Your task to perform on an android device: change timer sound Image 0: 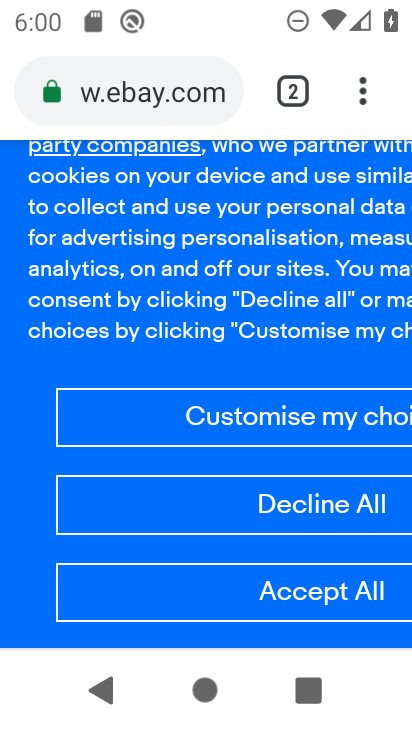
Step 0: press home button
Your task to perform on an android device: change timer sound Image 1: 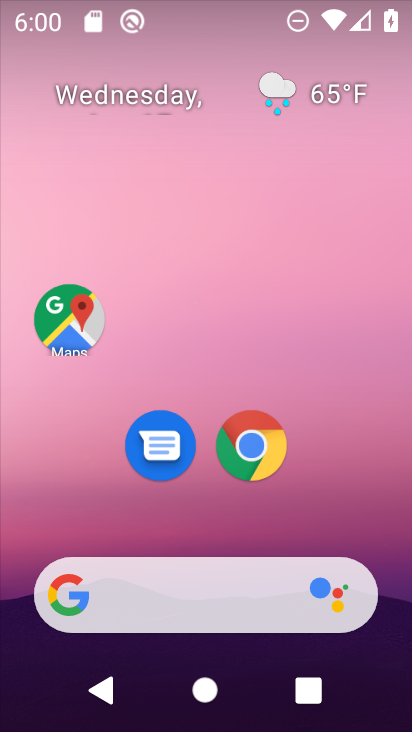
Step 1: drag from (190, 443) to (144, 122)
Your task to perform on an android device: change timer sound Image 2: 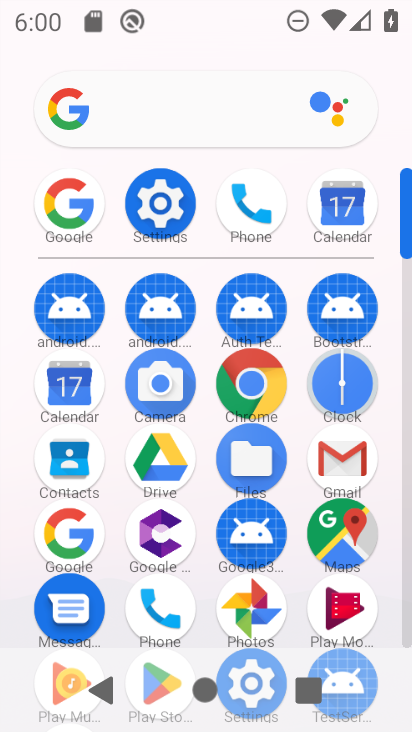
Step 2: click (365, 386)
Your task to perform on an android device: change timer sound Image 3: 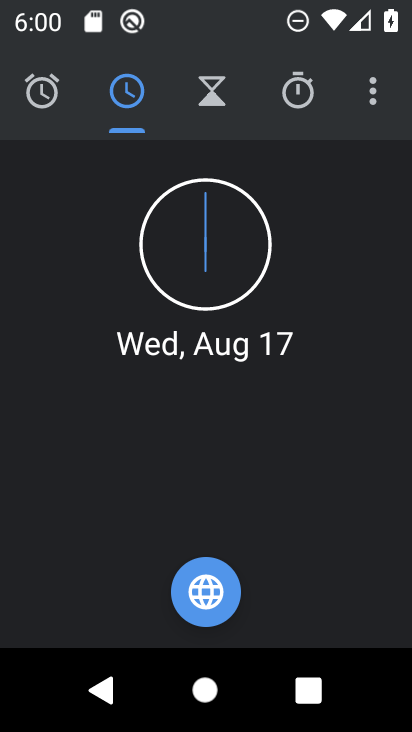
Step 3: click (368, 100)
Your task to perform on an android device: change timer sound Image 4: 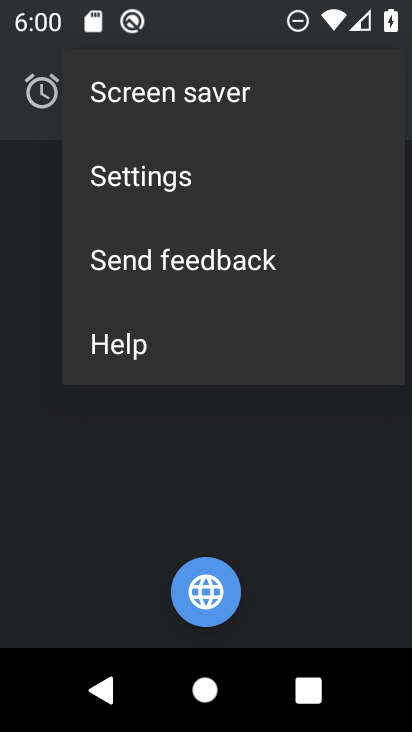
Step 4: click (194, 159)
Your task to perform on an android device: change timer sound Image 5: 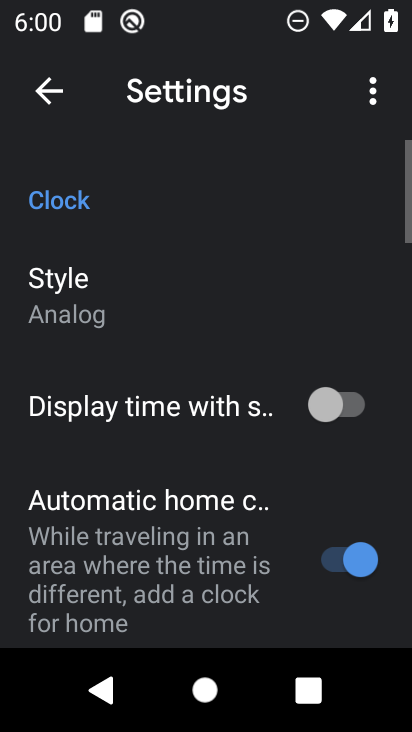
Step 5: drag from (141, 529) to (201, 101)
Your task to perform on an android device: change timer sound Image 6: 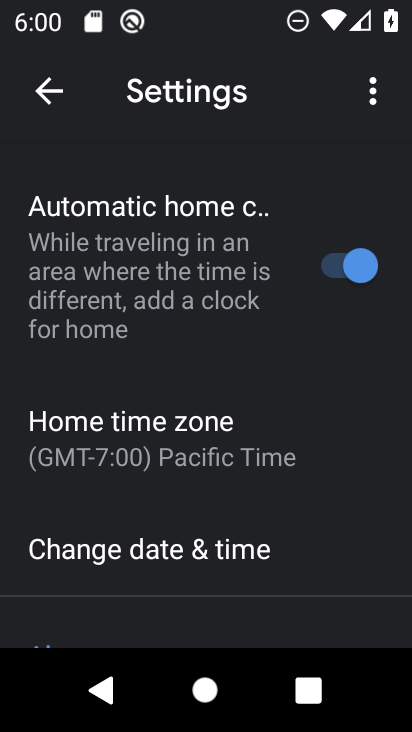
Step 6: drag from (228, 528) to (276, 152)
Your task to perform on an android device: change timer sound Image 7: 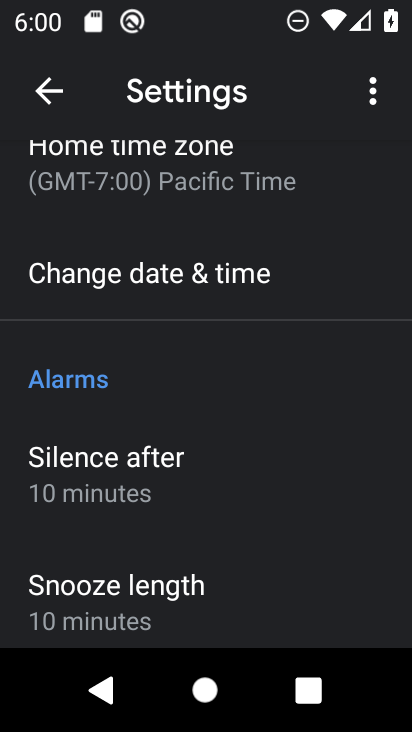
Step 7: drag from (227, 506) to (239, 136)
Your task to perform on an android device: change timer sound Image 8: 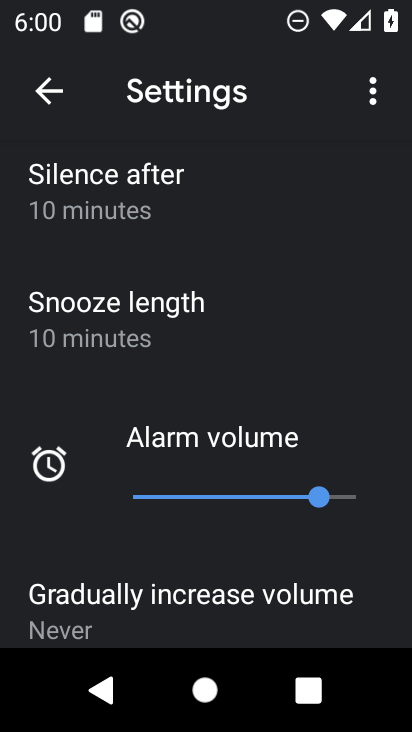
Step 8: drag from (197, 544) to (214, 186)
Your task to perform on an android device: change timer sound Image 9: 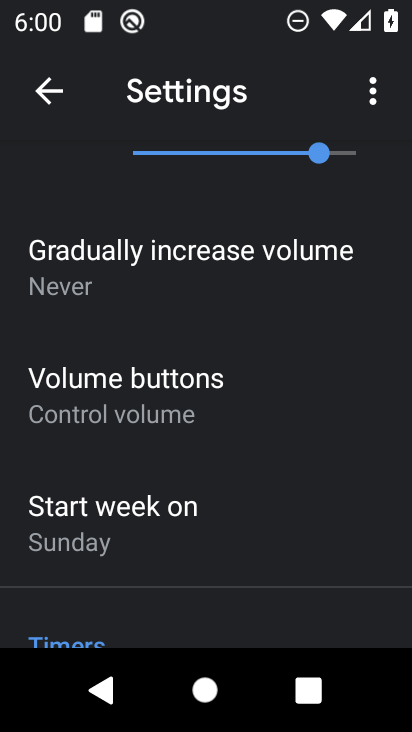
Step 9: drag from (179, 536) to (212, 118)
Your task to perform on an android device: change timer sound Image 10: 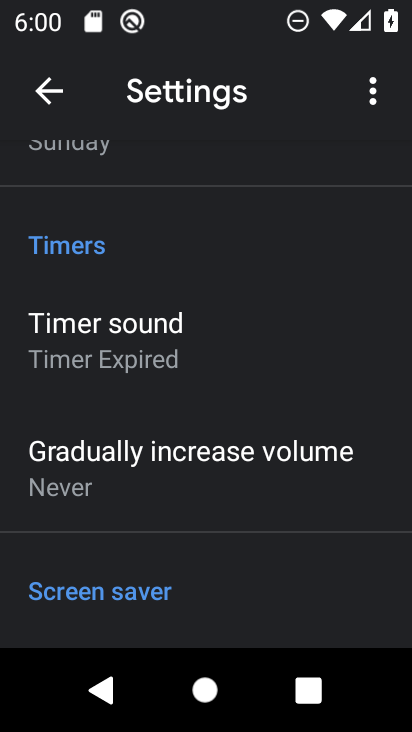
Step 10: click (152, 339)
Your task to perform on an android device: change timer sound Image 11: 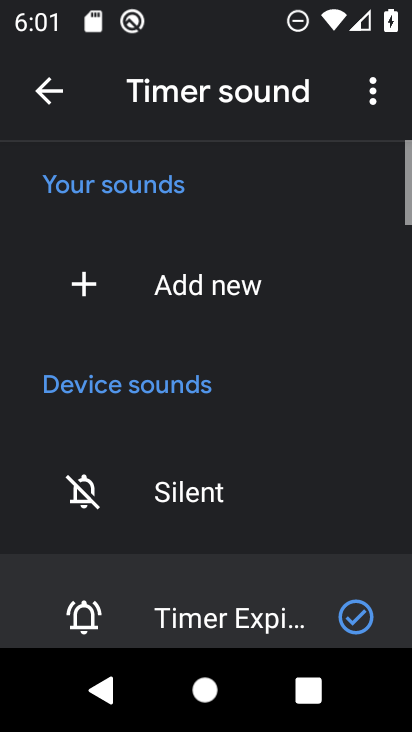
Step 11: drag from (183, 561) to (215, 264)
Your task to perform on an android device: change timer sound Image 12: 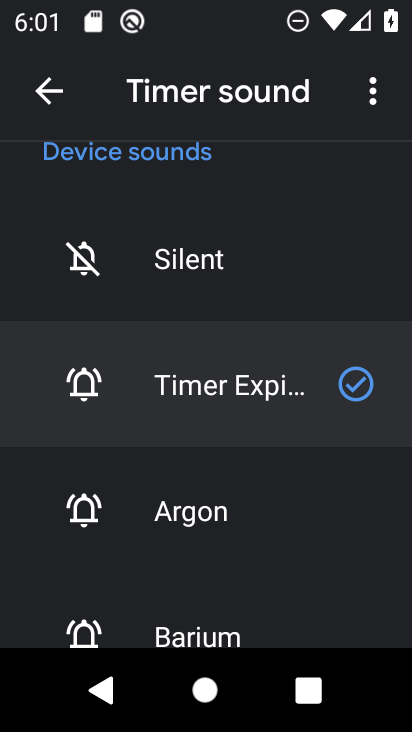
Step 12: click (191, 506)
Your task to perform on an android device: change timer sound Image 13: 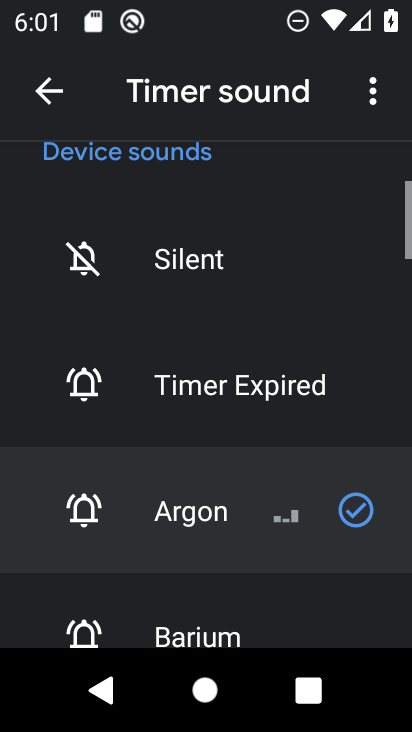
Step 13: task complete